Your task to perform on an android device: allow notifications from all sites in the chrome app Image 0: 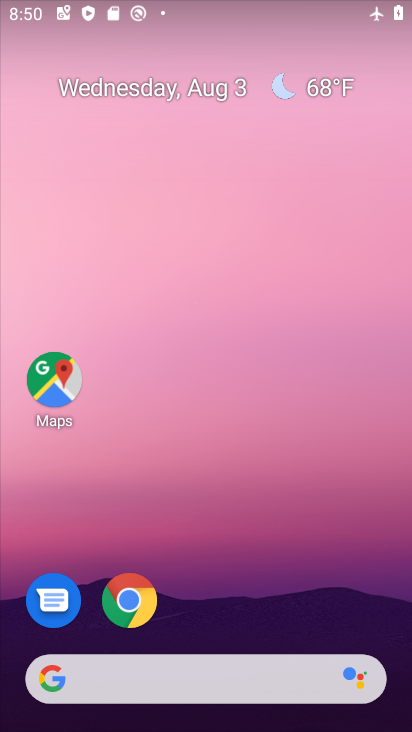
Step 0: click (130, 608)
Your task to perform on an android device: allow notifications from all sites in the chrome app Image 1: 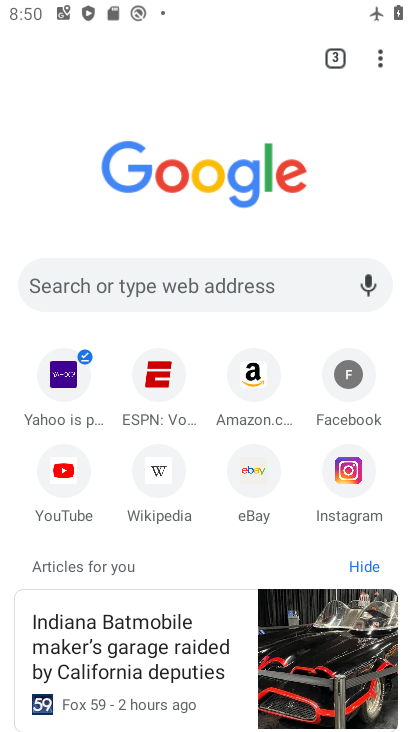
Step 1: click (375, 59)
Your task to perform on an android device: allow notifications from all sites in the chrome app Image 2: 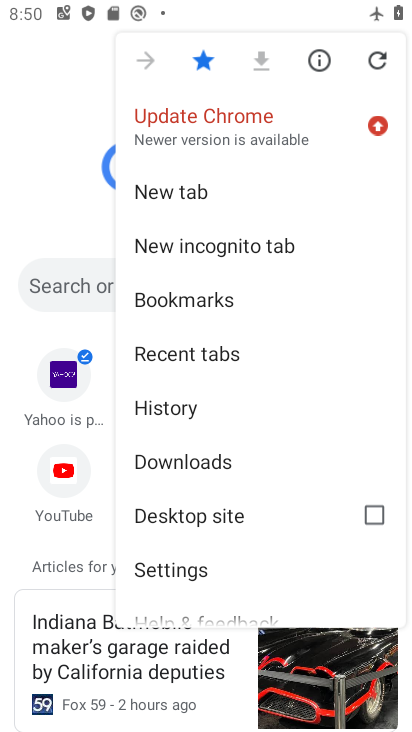
Step 2: click (176, 577)
Your task to perform on an android device: allow notifications from all sites in the chrome app Image 3: 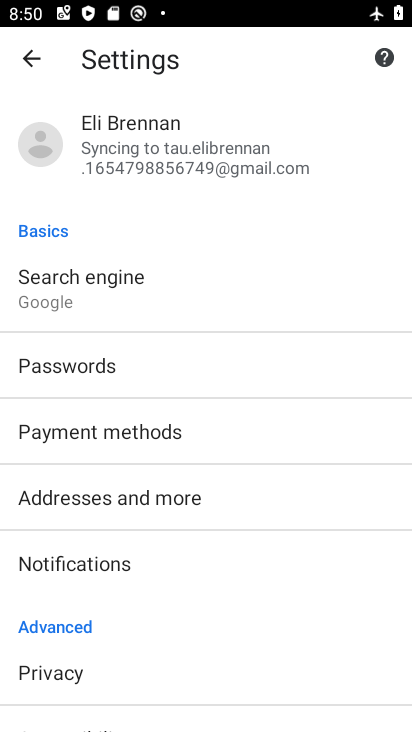
Step 3: click (119, 588)
Your task to perform on an android device: allow notifications from all sites in the chrome app Image 4: 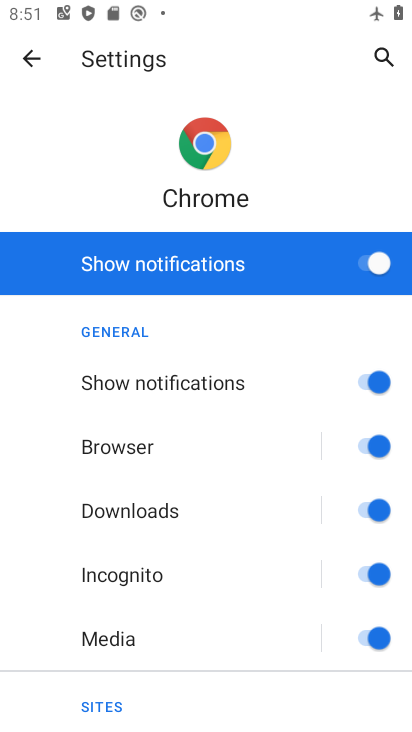
Step 4: task complete